Your task to perform on an android device: Clear all items from cart on amazon.com. Image 0: 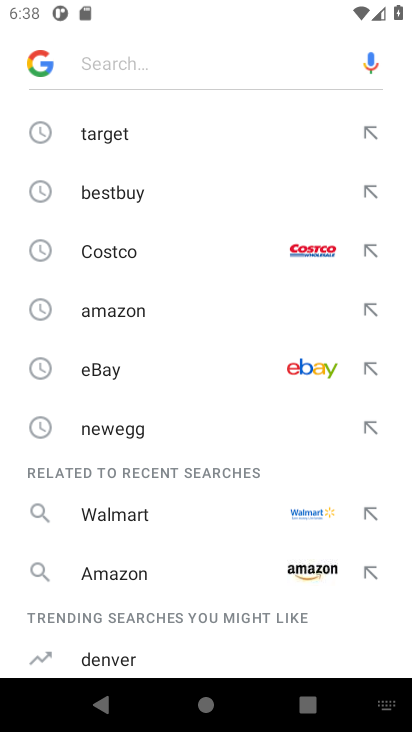
Step 0: click (118, 311)
Your task to perform on an android device: Clear all items from cart on amazon.com. Image 1: 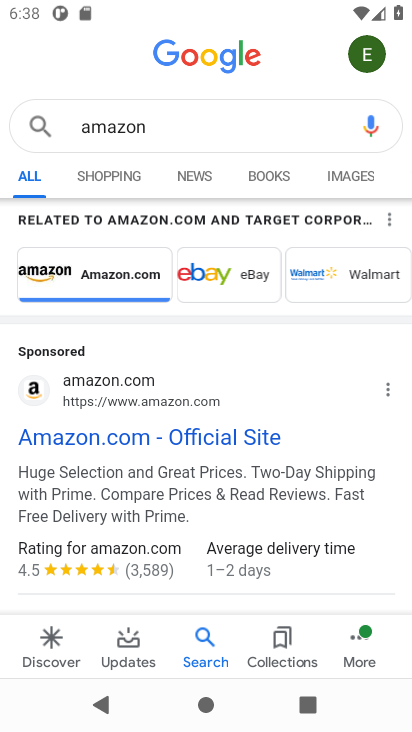
Step 1: drag from (120, 450) to (149, 191)
Your task to perform on an android device: Clear all items from cart on amazon.com. Image 2: 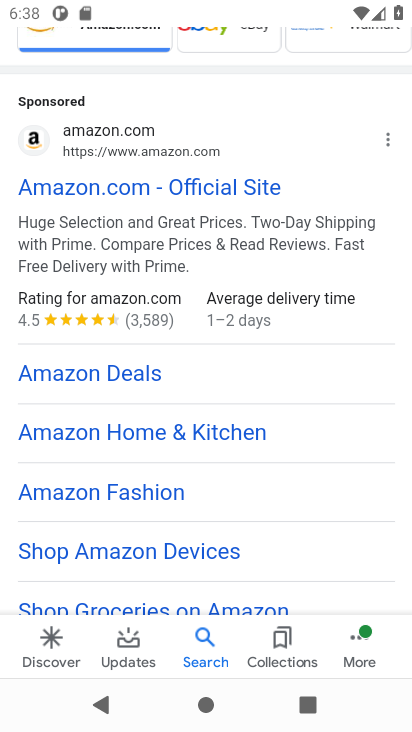
Step 2: drag from (170, 245) to (178, 191)
Your task to perform on an android device: Clear all items from cart on amazon.com. Image 3: 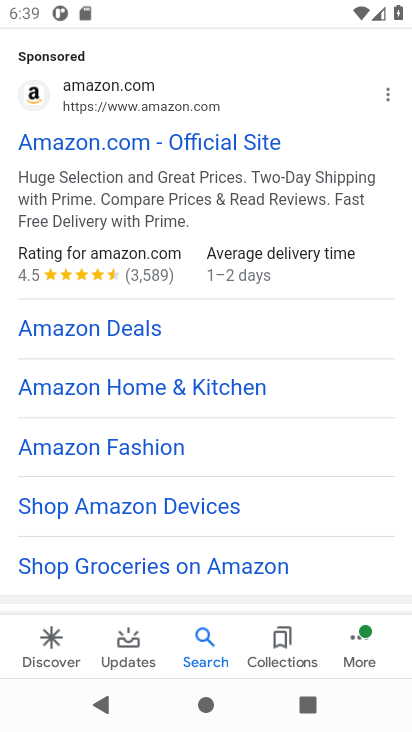
Step 3: drag from (145, 404) to (161, 203)
Your task to perform on an android device: Clear all items from cart on amazon.com. Image 4: 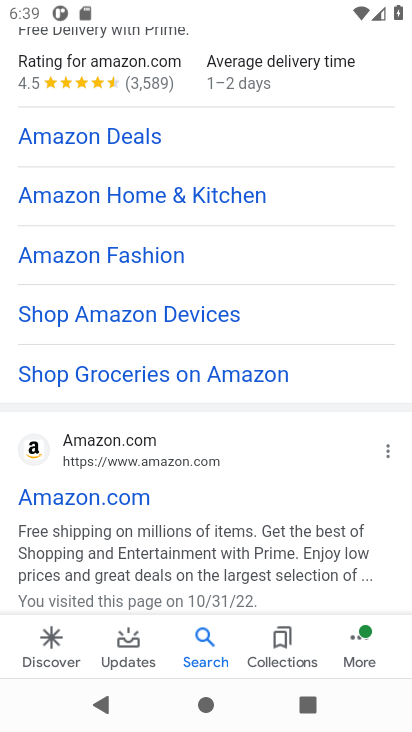
Step 4: click (66, 489)
Your task to perform on an android device: Clear all items from cart on amazon.com. Image 5: 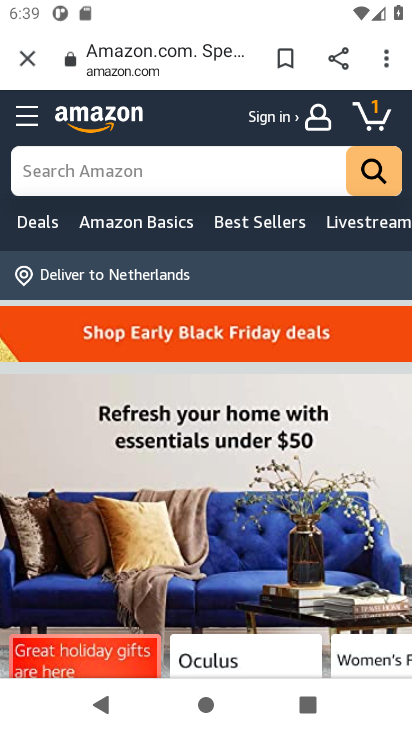
Step 5: click (374, 115)
Your task to perform on an android device: Clear all items from cart on amazon.com. Image 6: 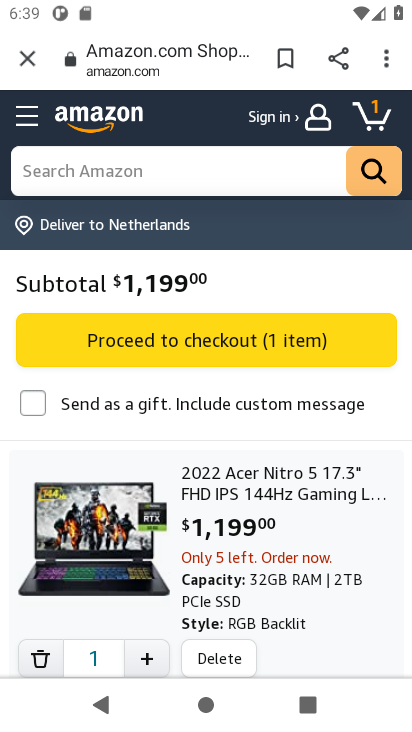
Step 6: drag from (276, 534) to (290, 293)
Your task to perform on an android device: Clear all items from cart on amazon.com. Image 7: 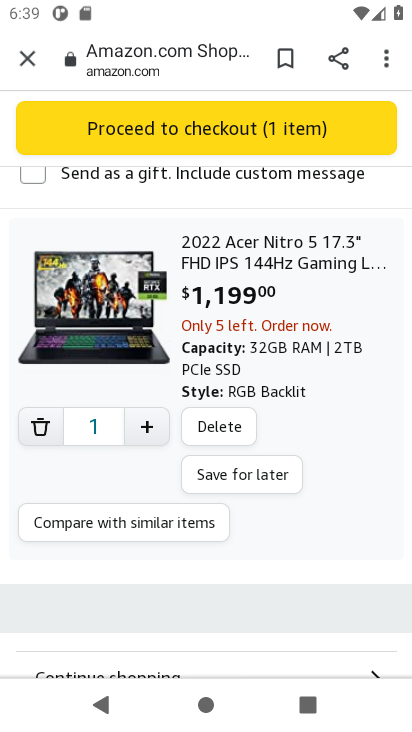
Step 7: click (203, 433)
Your task to perform on an android device: Clear all items from cart on amazon.com. Image 8: 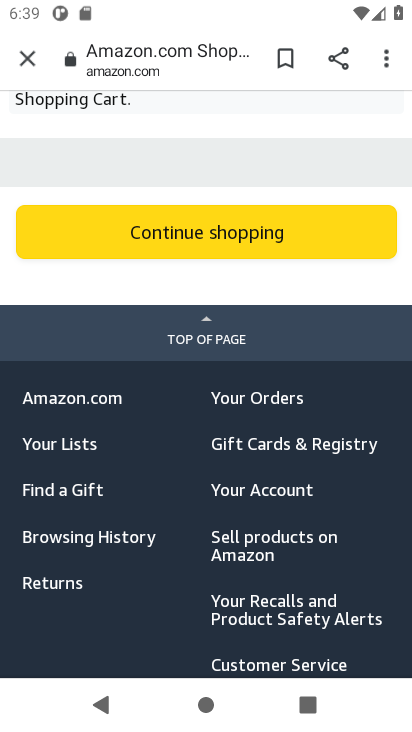
Step 8: task complete